Your task to perform on an android device: Search for Mexican restaurants on Maps Image 0: 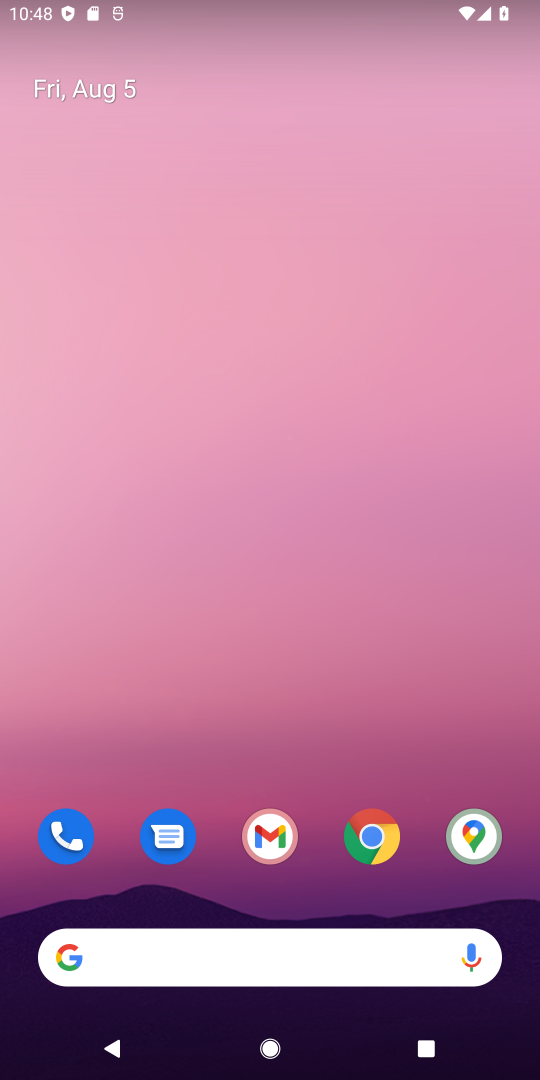
Step 0: drag from (320, 768) to (348, 158)
Your task to perform on an android device: Search for Mexican restaurants on Maps Image 1: 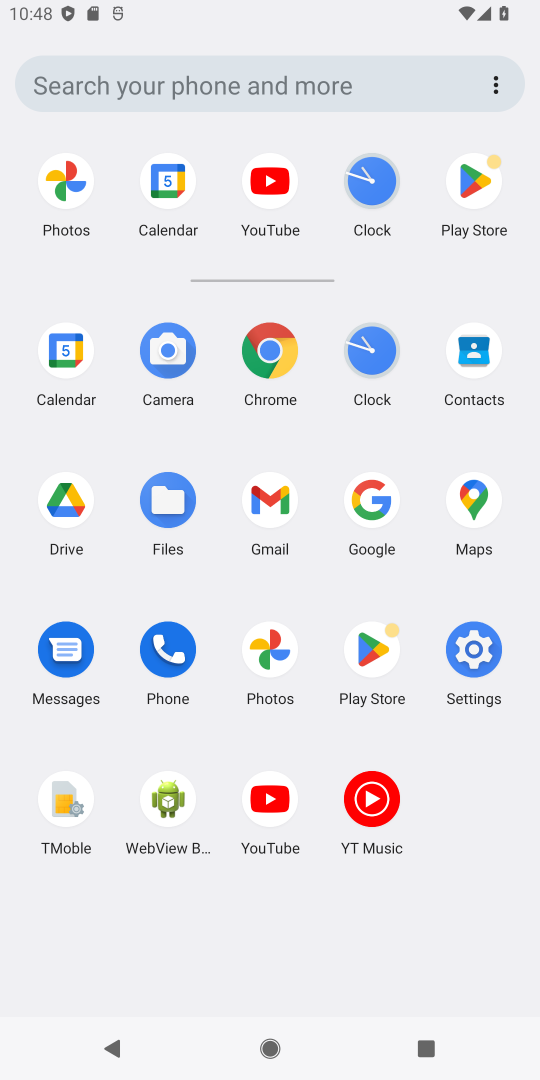
Step 1: click (474, 488)
Your task to perform on an android device: Search for Mexican restaurants on Maps Image 2: 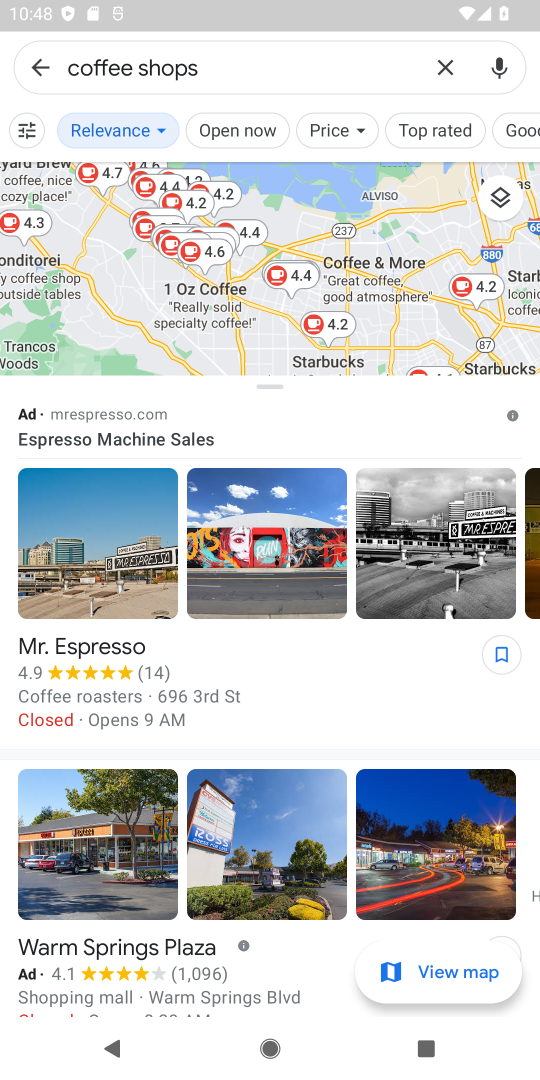
Step 2: click (445, 68)
Your task to perform on an android device: Search for Mexican restaurants on Maps Image 3: 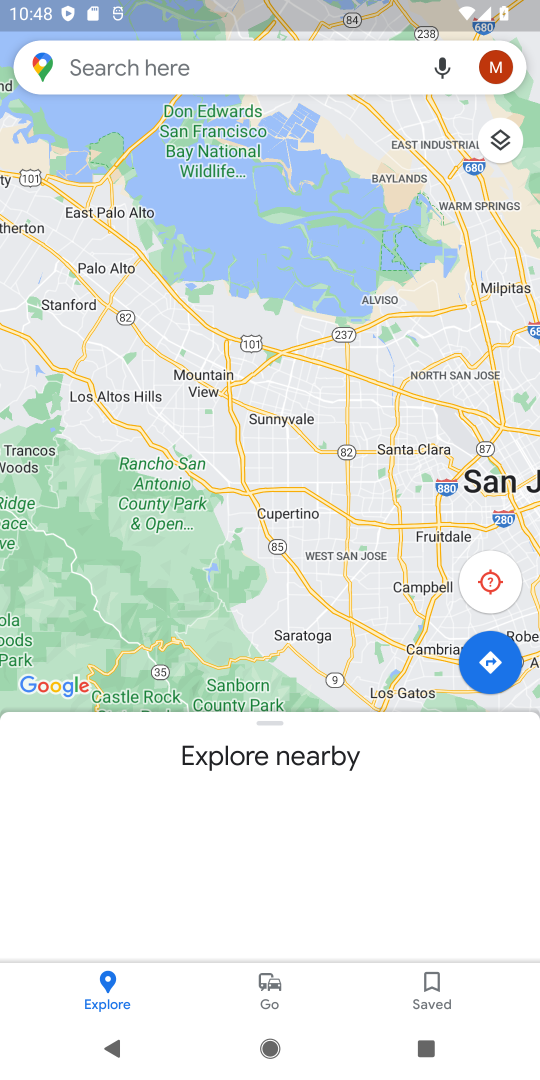
Step 3: click (282, 79)
Your task to perform on an android device: Search for Mexican restaurants on Maps Image 4: 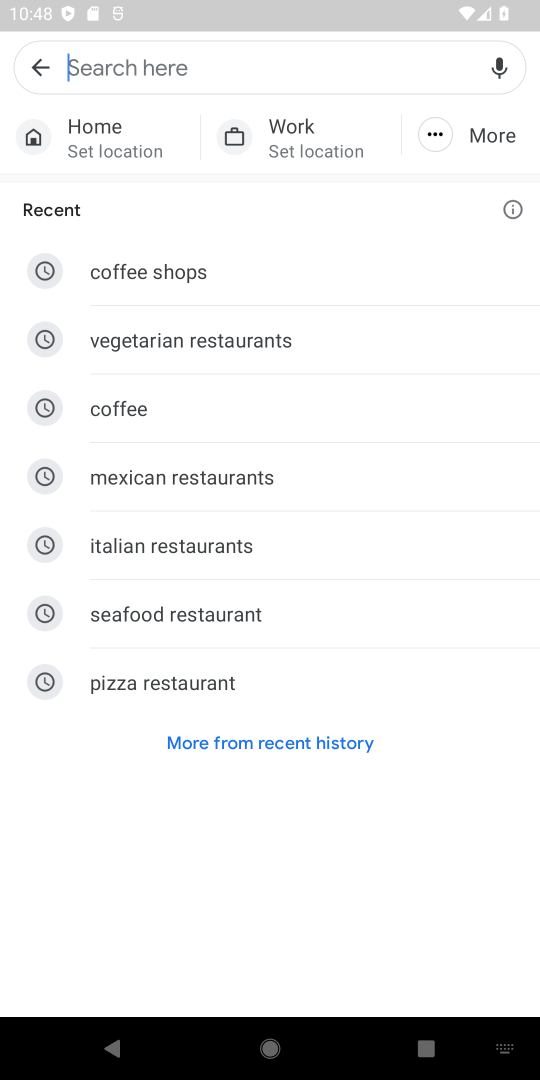
Step 4: click (229, 483)
Your task to perform on an android device: Search for Mexican restaurants on Maps Image 5: 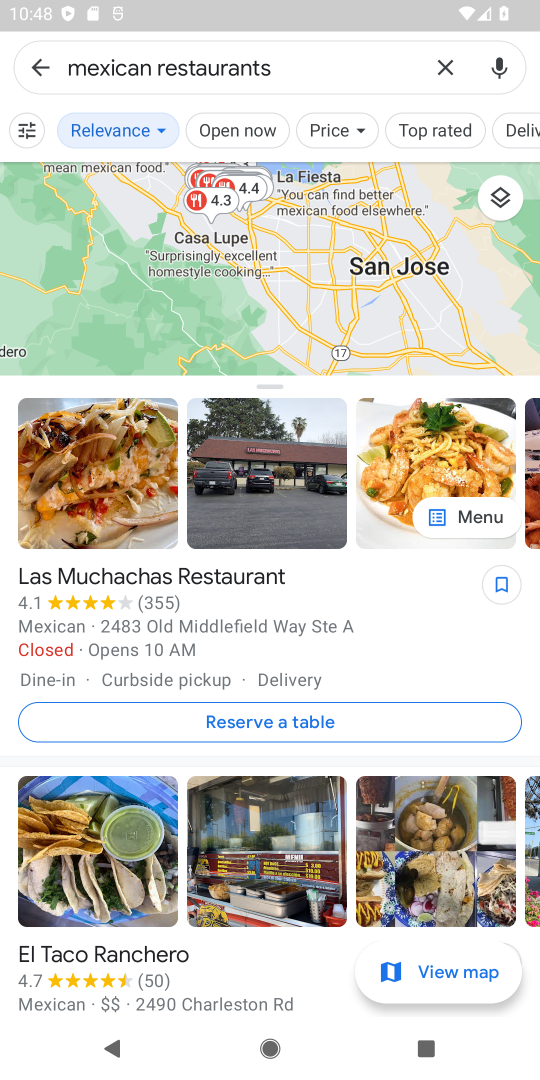
Step 5: task complete